Your task to perform on an android device: delete the emails in spam in the gmail app Image 0: 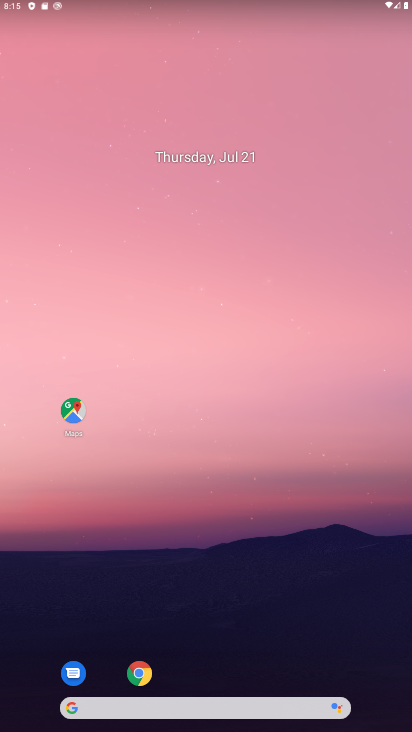
Step 0: drag from (199, 666) to (215, 164)
Your task to perform on an android device: delete the emails in spam in the gmail app Image 1: 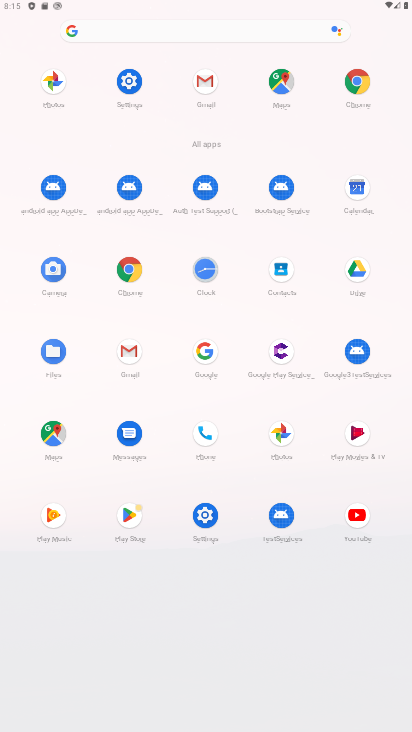
Step 1: click (129, 345)
Your task to perform on an android device: delete the emails in spam in the gmail app Image 2: 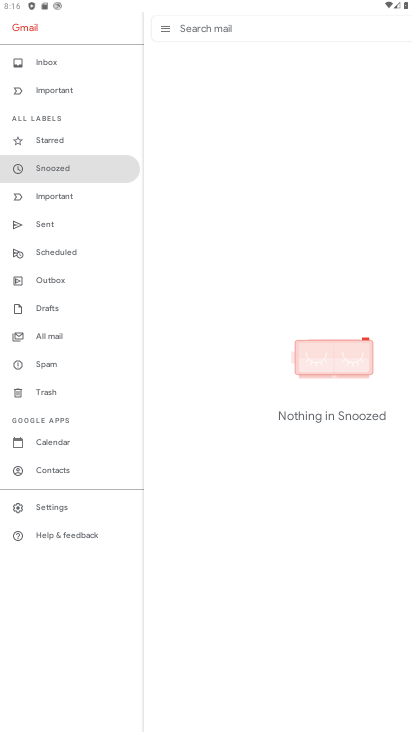
Step 2: click (65, 366)
Your task to perform on an android device: delete the emails in spam in the gmail app Image 3: 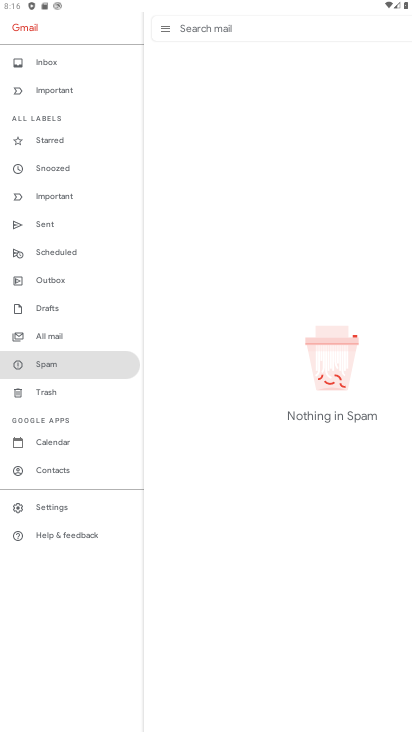
Step 3: task complete